Your task to perform on an android device: Check the news Image 0: 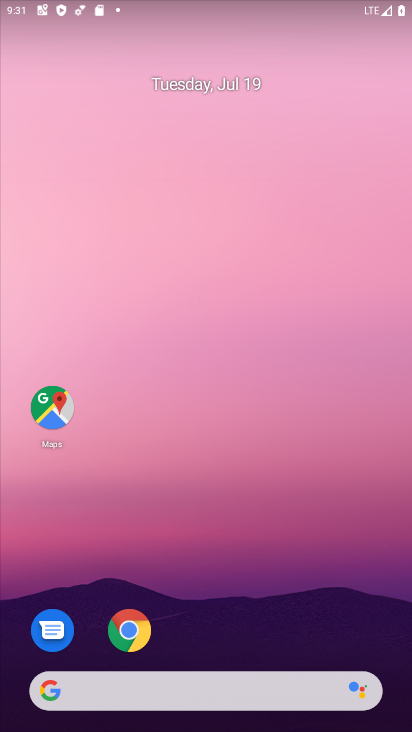
Step 0: drag from (225, 693) to (301, 281)
Your task to perform on an android device: Check the news Image 1: 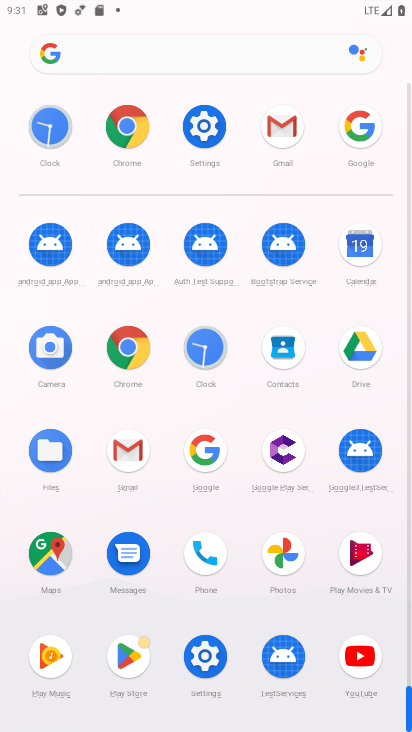
Step 1: click (211, 458)
Your task to perform on an android device: Check the news Image 2: 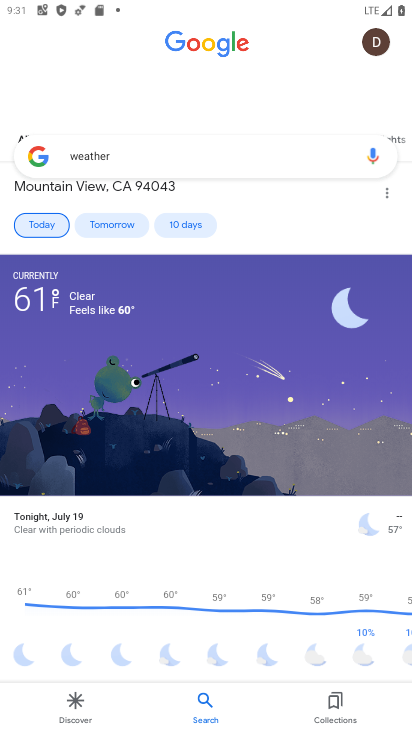
Step 2: click (217, 157)
Your task to perform on an android device: Check the news Image 3: 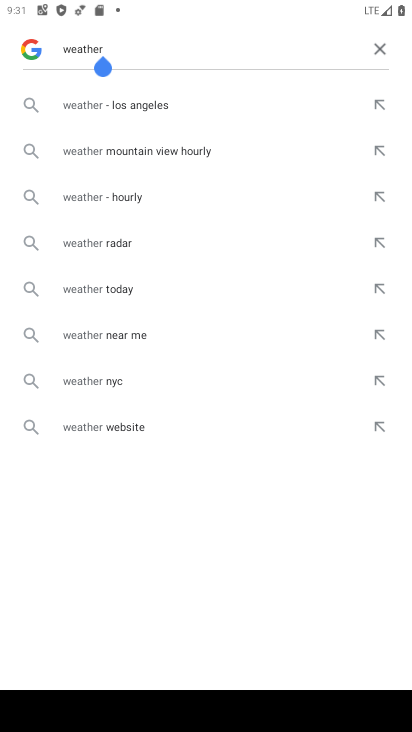
Step 3: click (380, 54)
Your task to perform on an android device: Check the news Image 4: 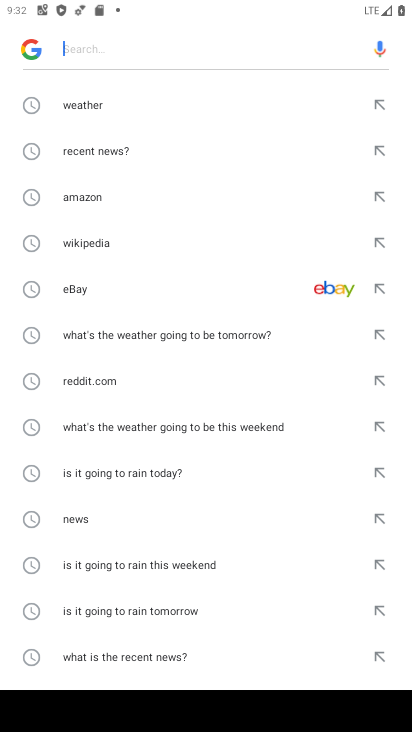
Step 4: click (94, 525)
Your task to perform on an android device: Check the news Image 5: 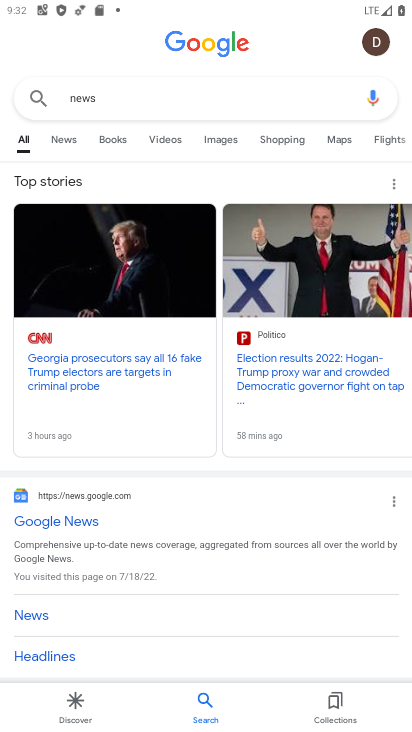
Step 5: click (64, 144)
Your task to perform on an android device: Check the news Image 6: 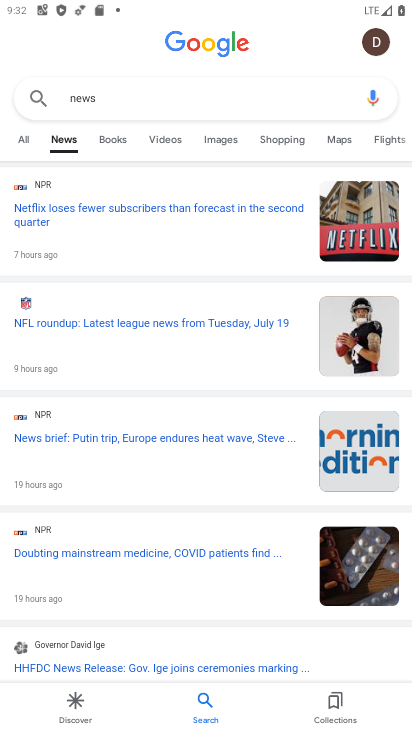
Step 6: task complete